Your task to perform on an android device: What's the news in Bolivia? Image 0: 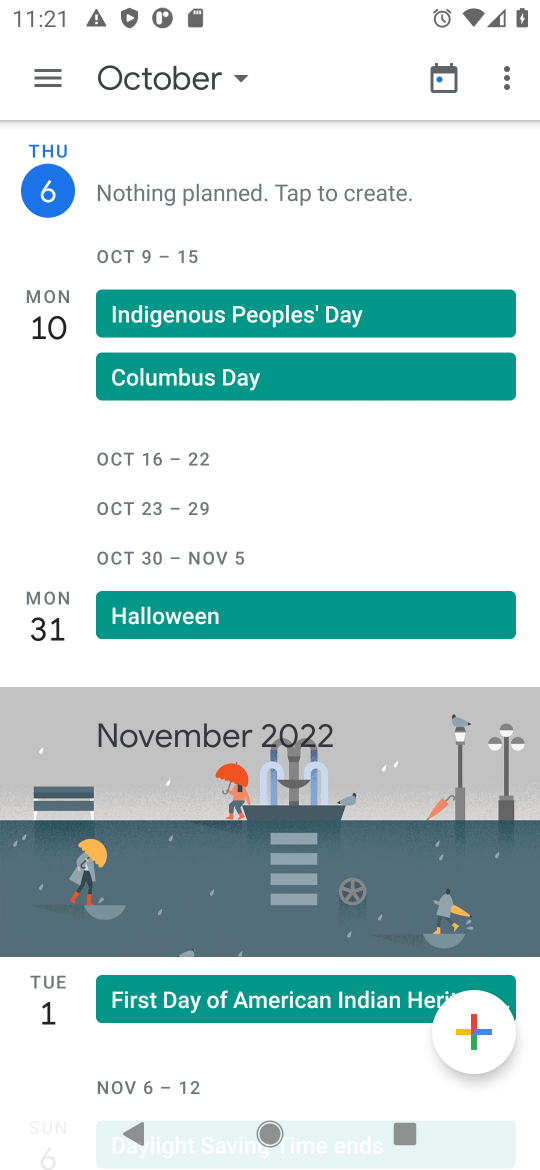
Step 0: press home button
Your task to perform on an android device: What's the news in Bolivia? Image 1: 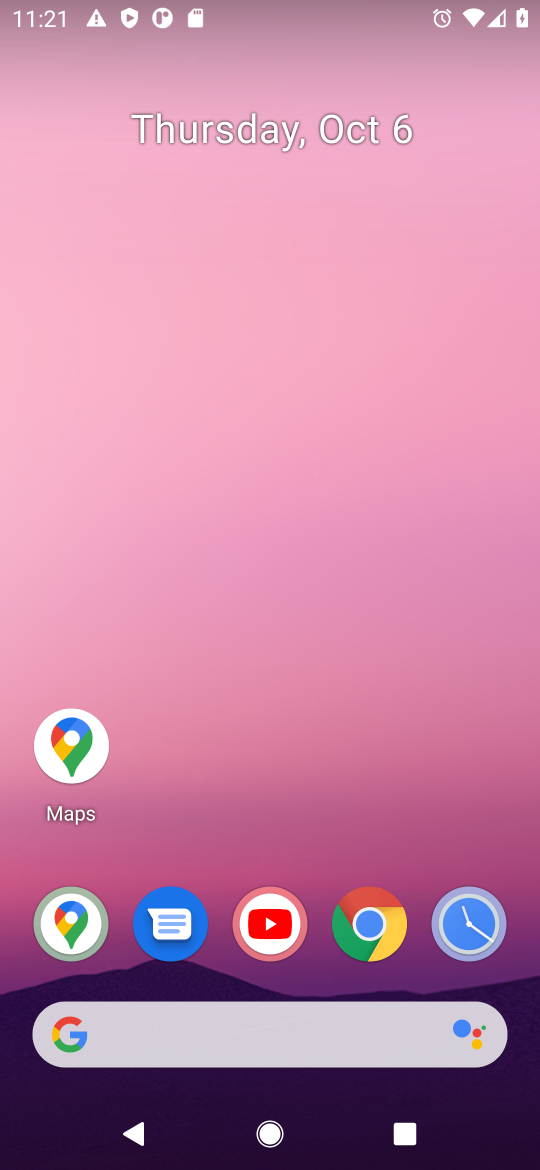
Step 1: click (373, 927)
Your task to perform on an android device: What's the news in Bolivia? Image 2: 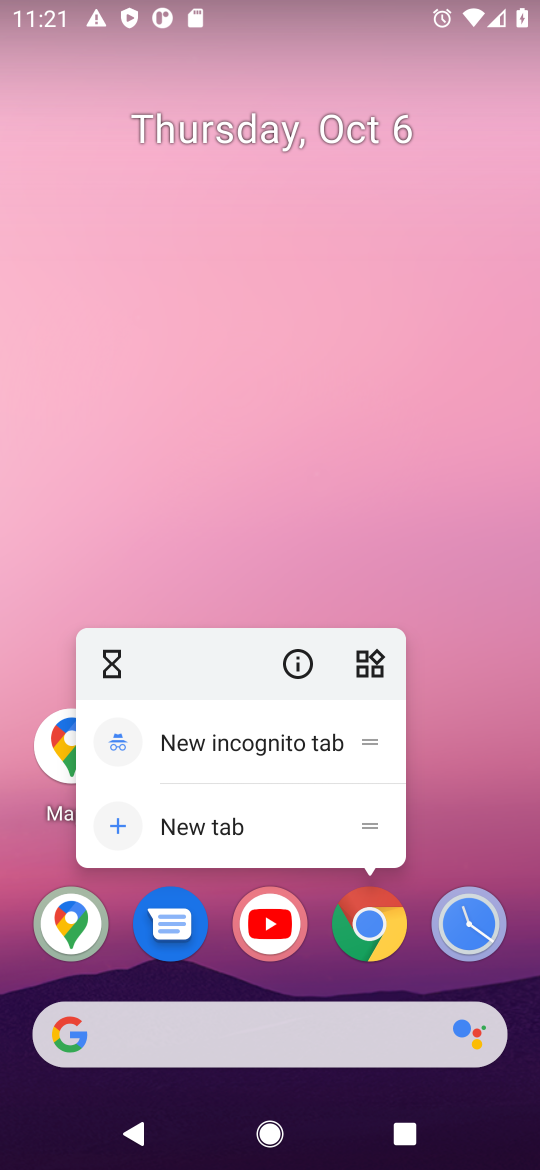
Step 2: click (376, 924)
Your task to perform on an android device: What's the news in Bolivia? Image 3: 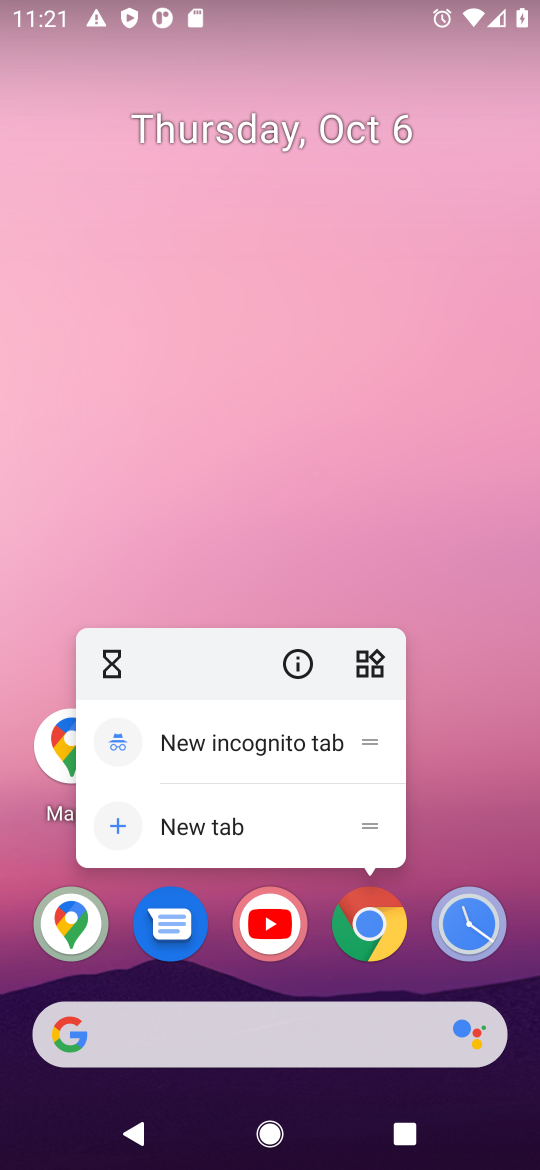
Step 3: click (367, 931)
Your task to perform on an android device: What's the news in Bolivia? Image 4: 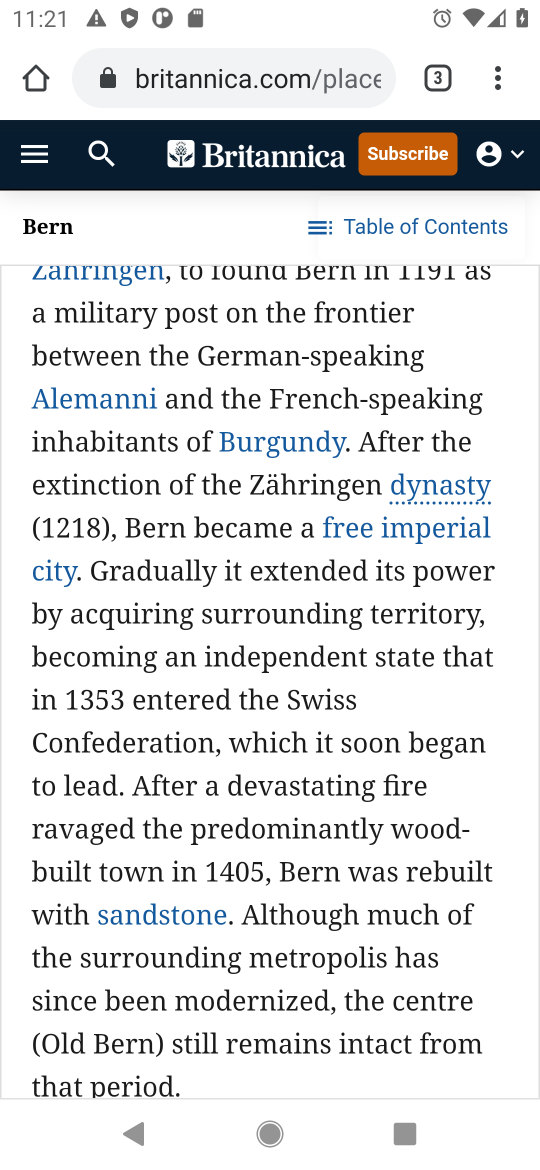
Step 4: click (323, 72)
Your task to perform on an android device: What's the news in Bolivia? Image 5: 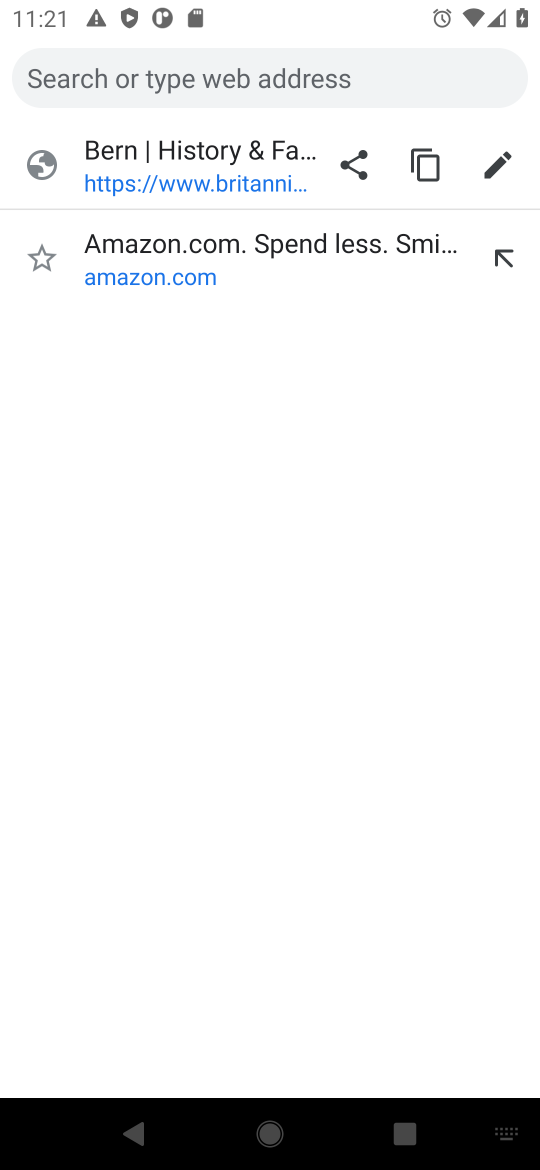
Step 5: type "news in Bolivia"
Your task to perform on an android device: What's the news in Bolivia? Image 6: 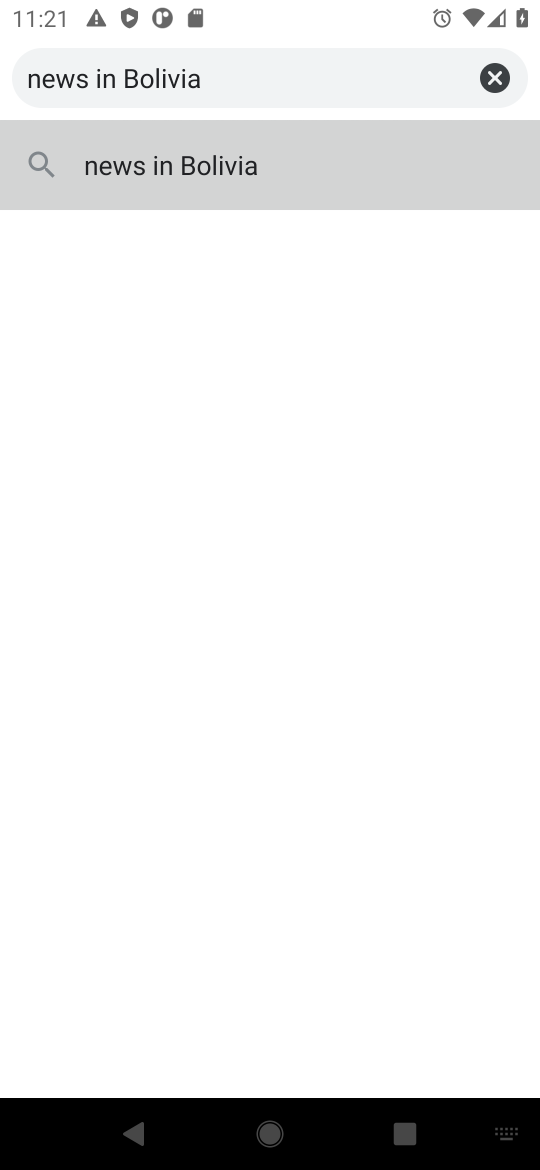
Step 6: press enter
Your task to perform on an android device: What's the news in Bolivia? Image 7: 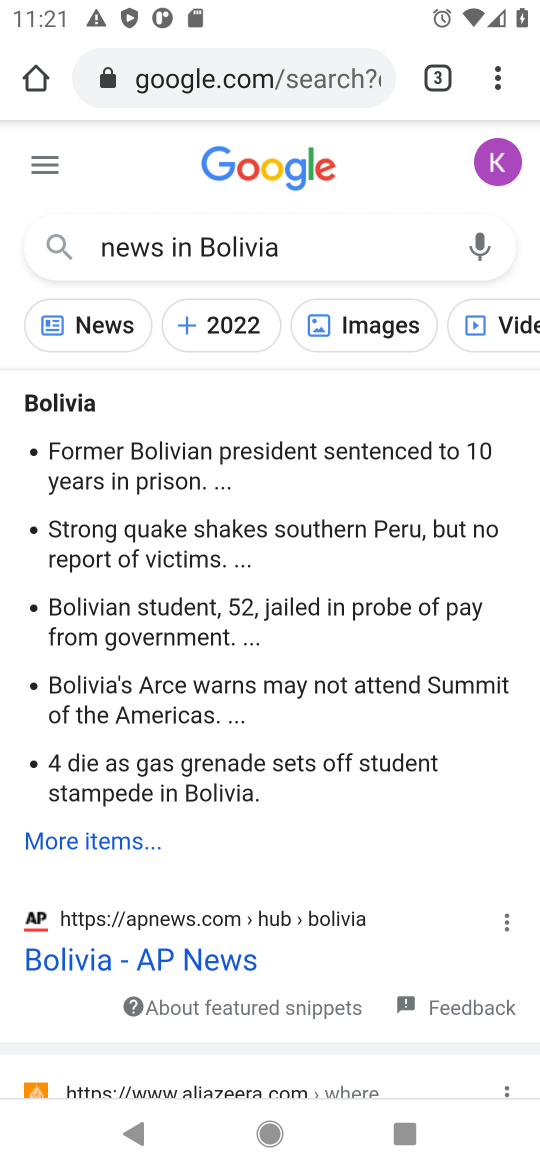
Step 7: click (149, 166)
Your task to perform on an android device: What's the news in Bolivia? Image 8: 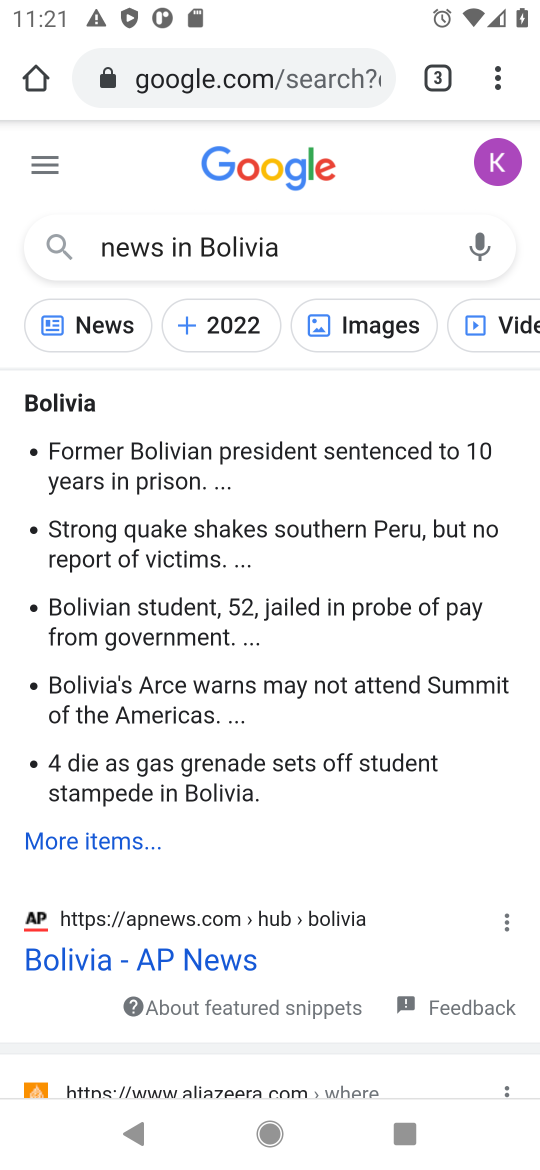
Step 8: drag from (199, 674) to (186, 927)
Your task to perform on an android device: What's the news in Bolivia? Image 9: 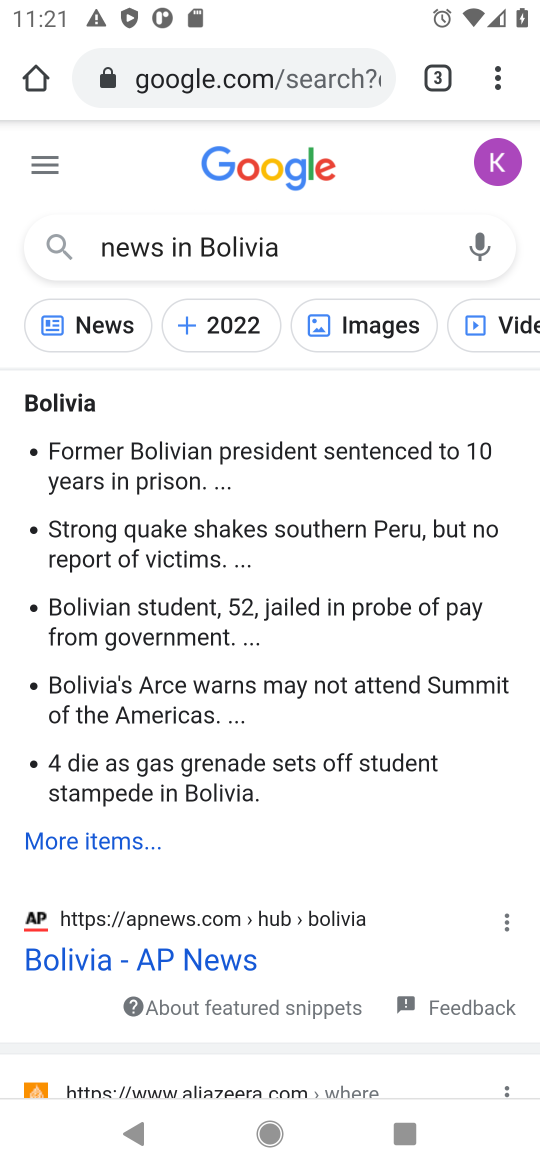
Step 9: click (94, 328)
Your task to perform on an android device: What's the news in Bolivia? Image 10: 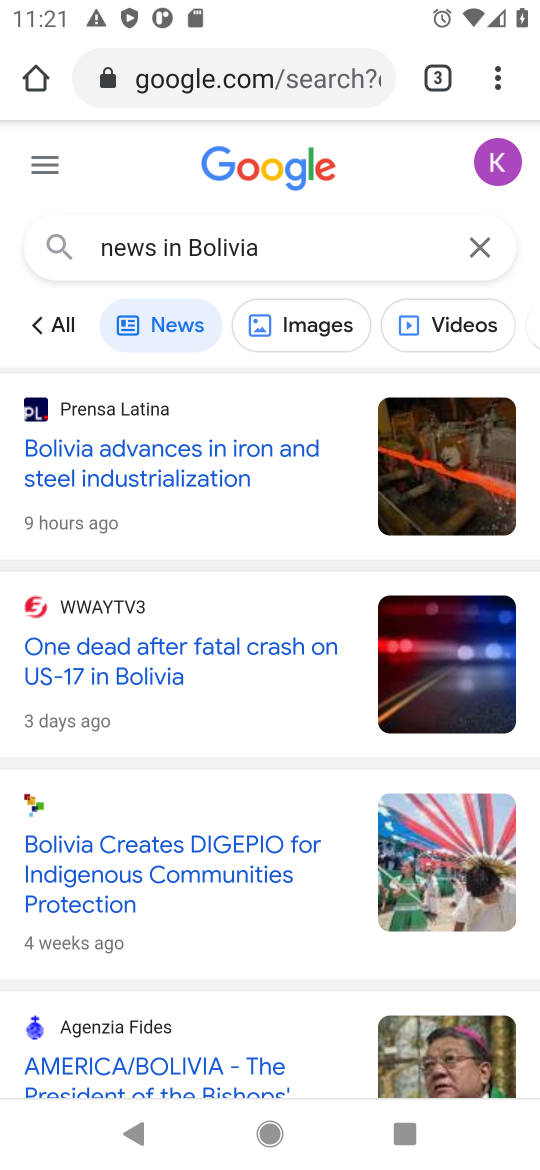
Step 10: task complete